Your task to perform on an android device: toggle translation in the chrome app Image 0: 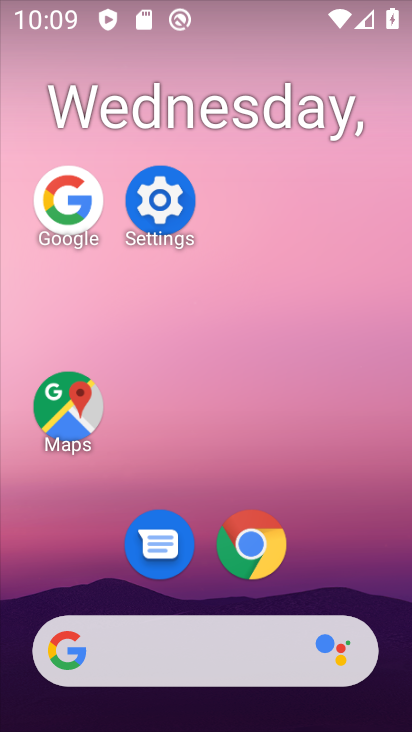
Step 0: click (238, 546)
Your task to perform on an android device: toggle translation in the chrome app Image 1: 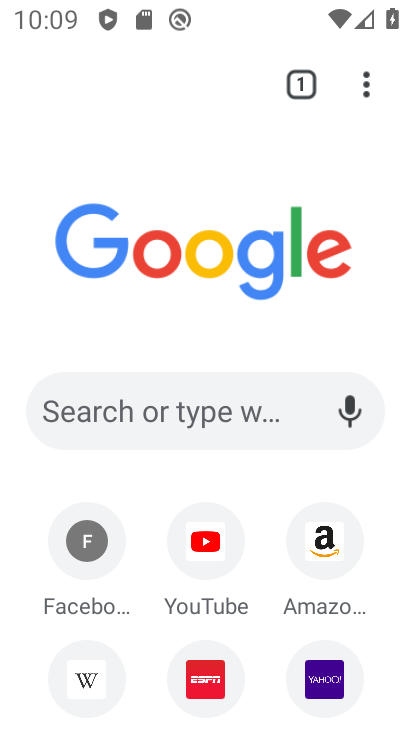
Step 1: click (370, 88)
Your task to perform on an android device: toggle translation in the chrome app Image 2: 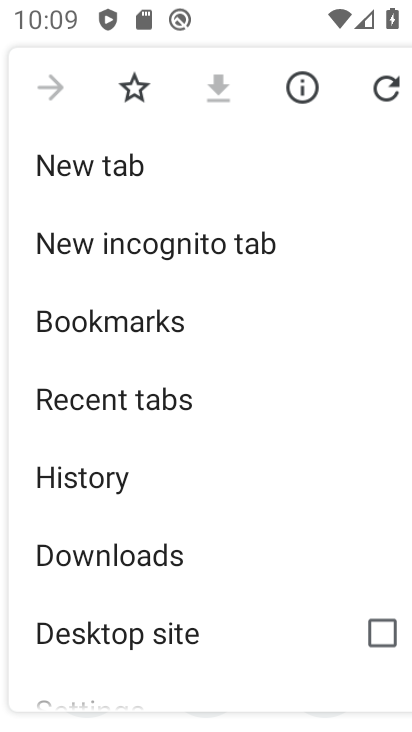
Step 2: drag from (221, 569) to (316, 43)
Your task to perform on an android device: toggle translation in the chrome app Image 3: 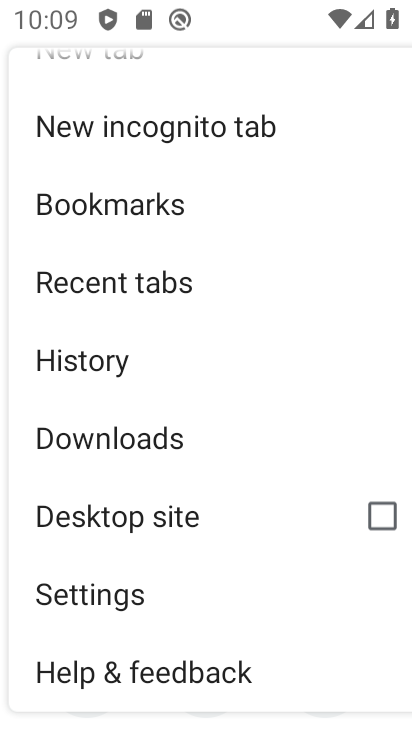
Step 3: click (141, 590)
Your task to perform on an android device: toggle translation in the chrome app Image 4: 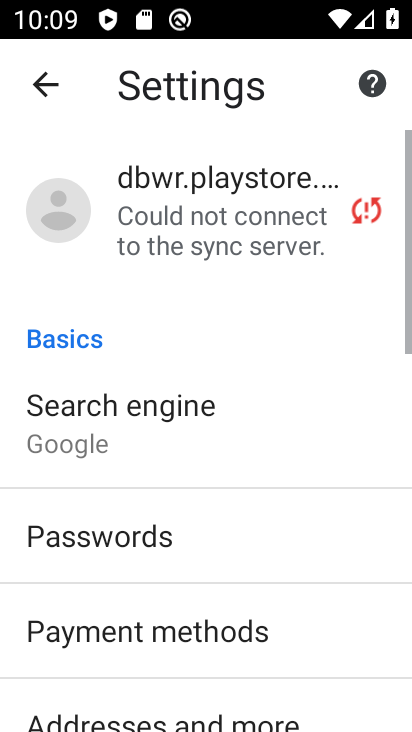
Step 4: drag from (137, 587) to (231, 232)
Your task to perform on an android device: toggle translation in the chrome app Image 5: 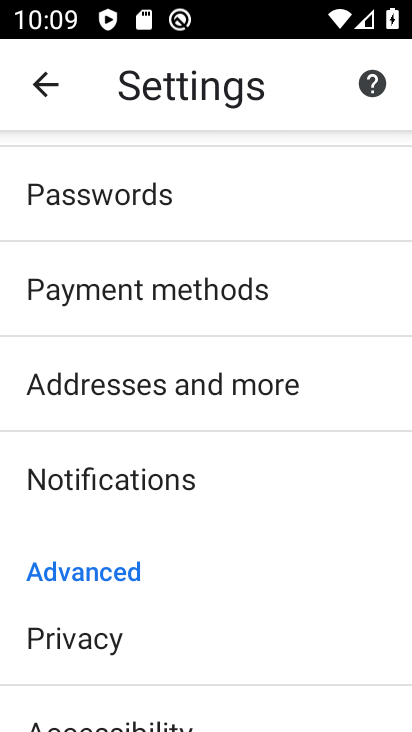
Step 5: drag from (168, 618) to (221, 148)
Your task to perform on an android device: toggle translation in the chrome app Image 6: 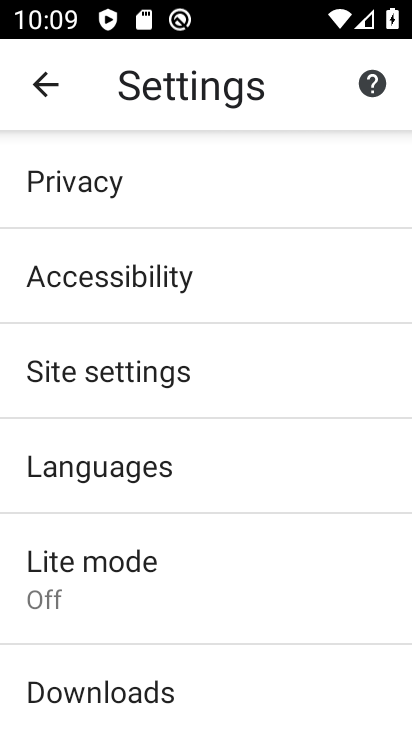
Step 6: click (166, 442)
Your task to perform on an android device: toggle translation in the chrome app Image 7: 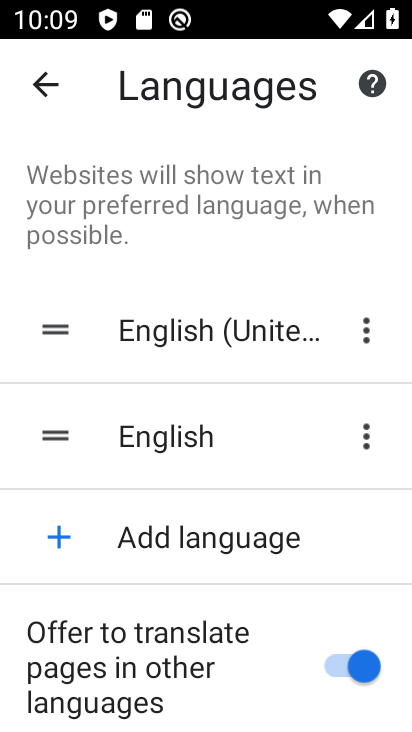
Step 7: click (280, 674)
Your task to perform on an android device: toggle translation in the chrome app Image 8: 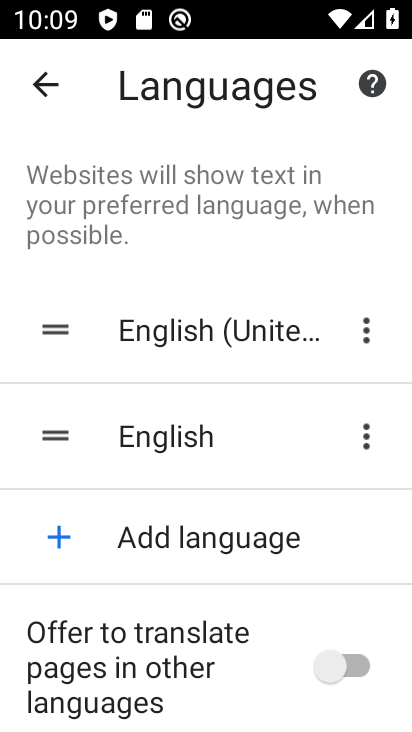
Step 8: task complete